Your task to perform on an android device: Show me productivity apps on the Play Store Image 0: 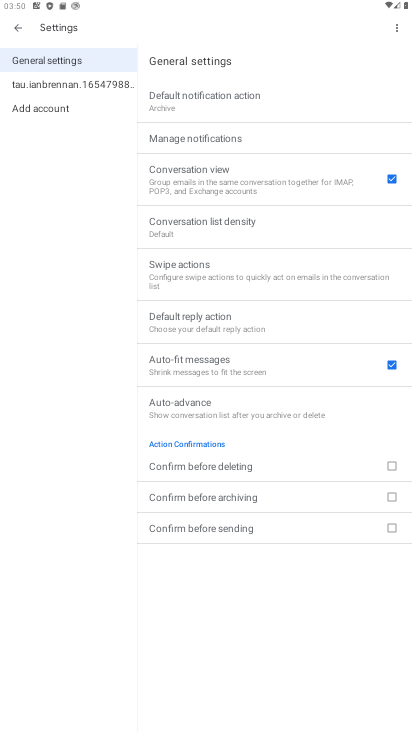
Step 0: press home button
Your task to perform on an android device: Show me productivity apps on the Play Store Image 1: 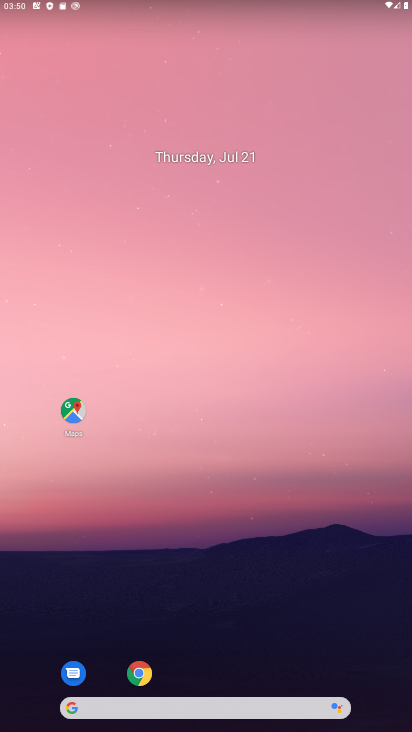
Step 1: drag from (293, 622) to (211, 16)
Your task to perform on an android device: Show me productivity apps on the Play Store Image 2: 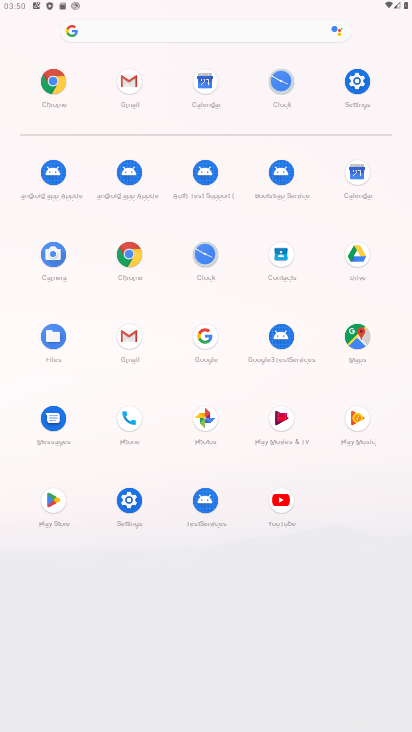
Step 2: click (52, 502)
Your task to perform on an android device: Show me productivity apps on the Play Store Image 3: 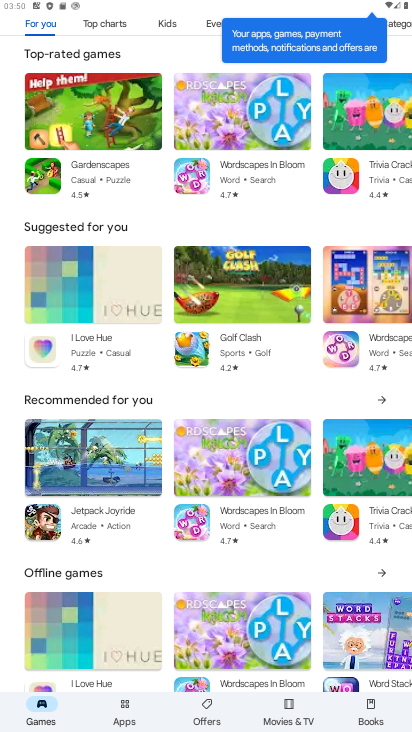
Step 3: click (126, 724)
Your task to perform on an android device: Show me productivity apps on the Play Store Image 4: 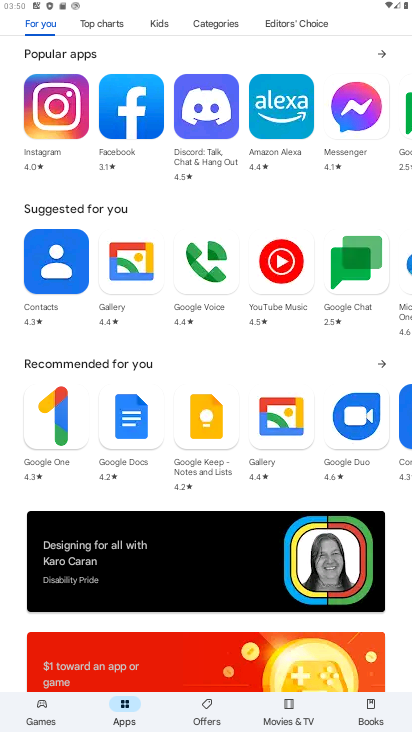
Step 4: task complete